Your task to perform on an android device: Open Chrome and go to the settings page Image 0: 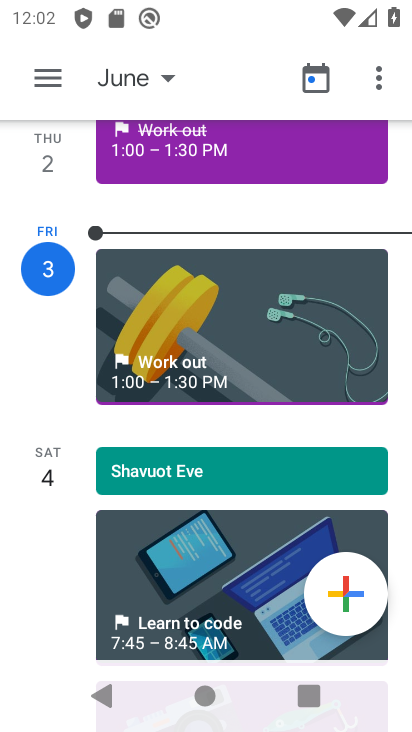
Step 0: press home button
Your task to perform on an android device: Open Chrome and go to the settings page Image 1: 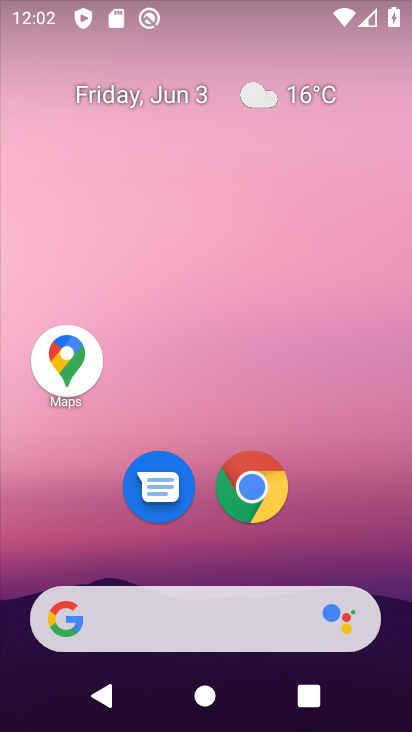
Step 1: click (259, 485)
Your task to perform on an android device: Open Chrome and go to the settings page Image 2: 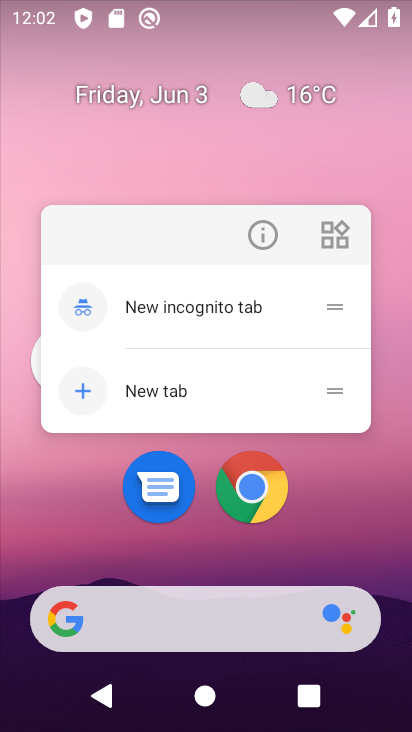
Step 2: click (258, 478)
Your task to perform on an android device: Open Chrome and go to the settings page Image 3: 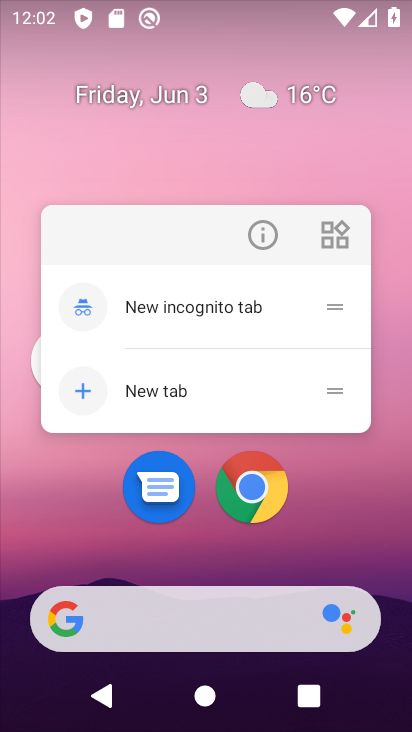
Step 3: click (256, 475)
Your task to perform on an android device: Open Chrome and go to the settings page Image 4: 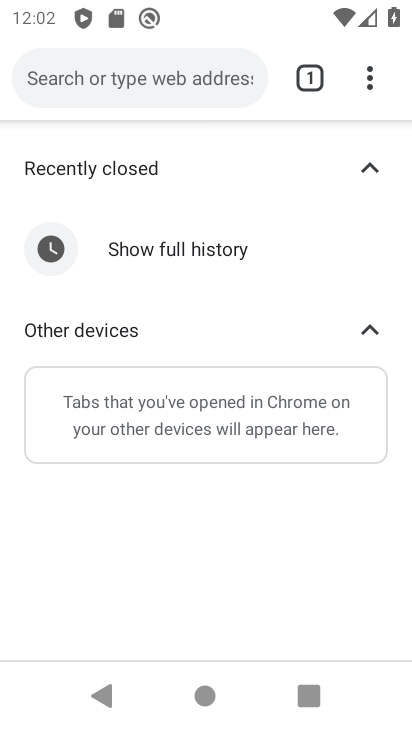
Step 4: click (375, 70)
Your task to perform on an android device: Open Chrome and go to the settings page Image 5: 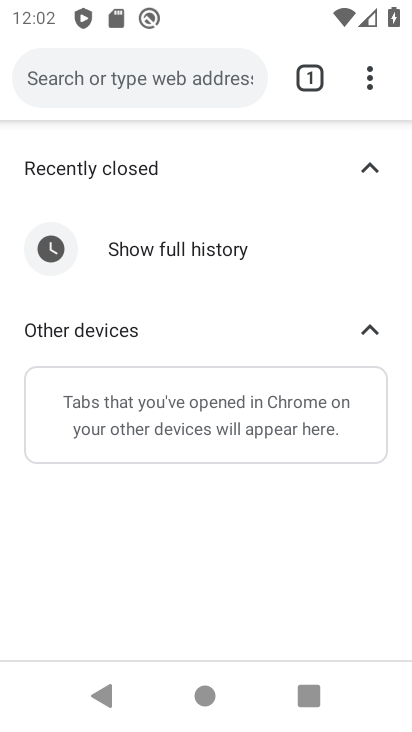
Step 5: task complete